Your task to perform on an android device: find photos in the google photos app Image 0: 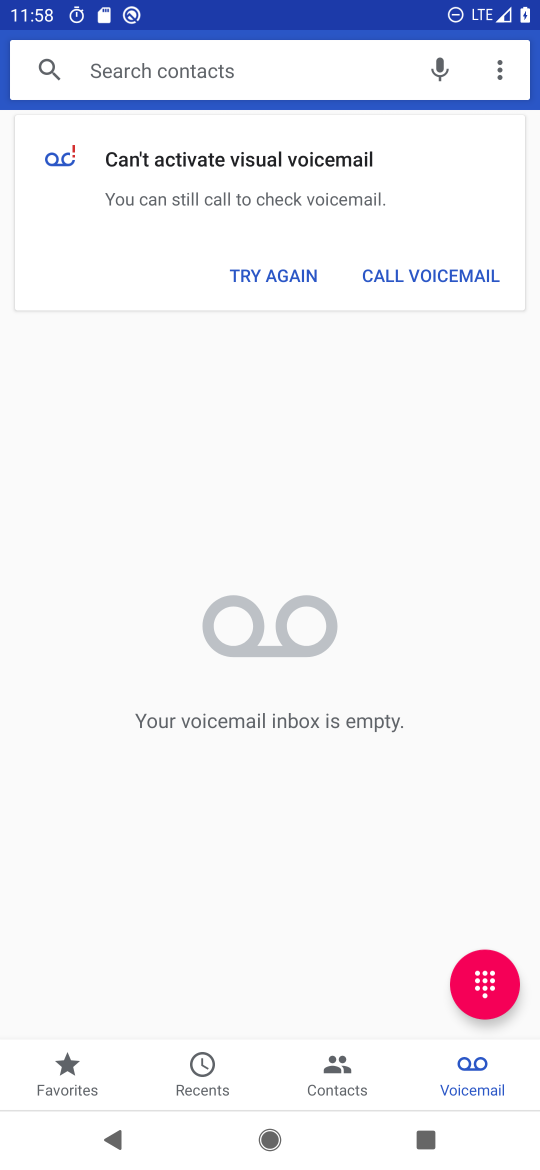
Step 0: press home button
Your task to perform on an android device: find photos in the google photos app Image 1: 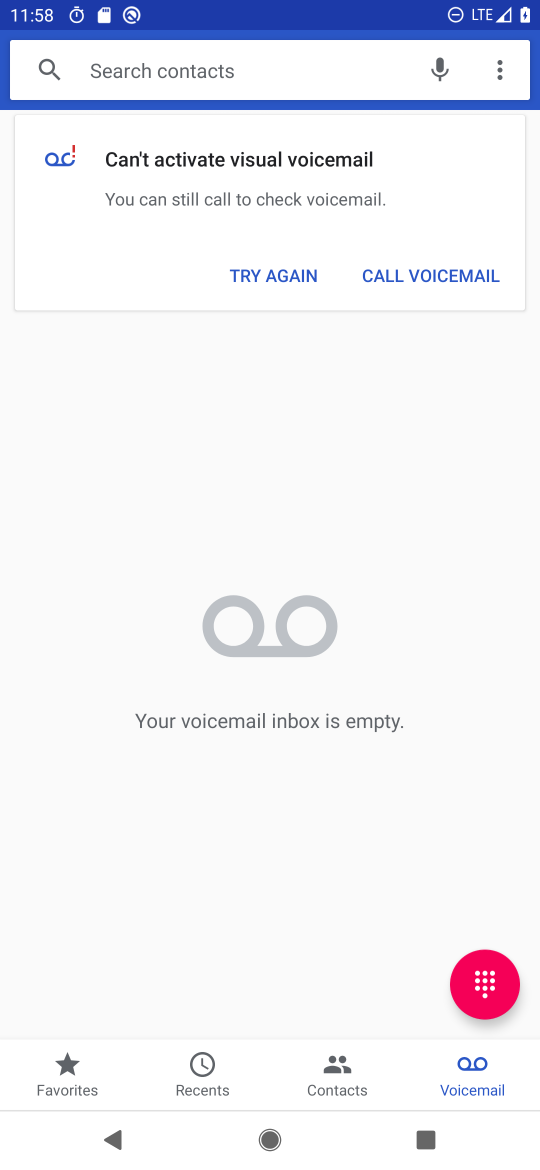
Step 1: press home button
Your task to perform on an android device: find photos in the google photos app Image 2: 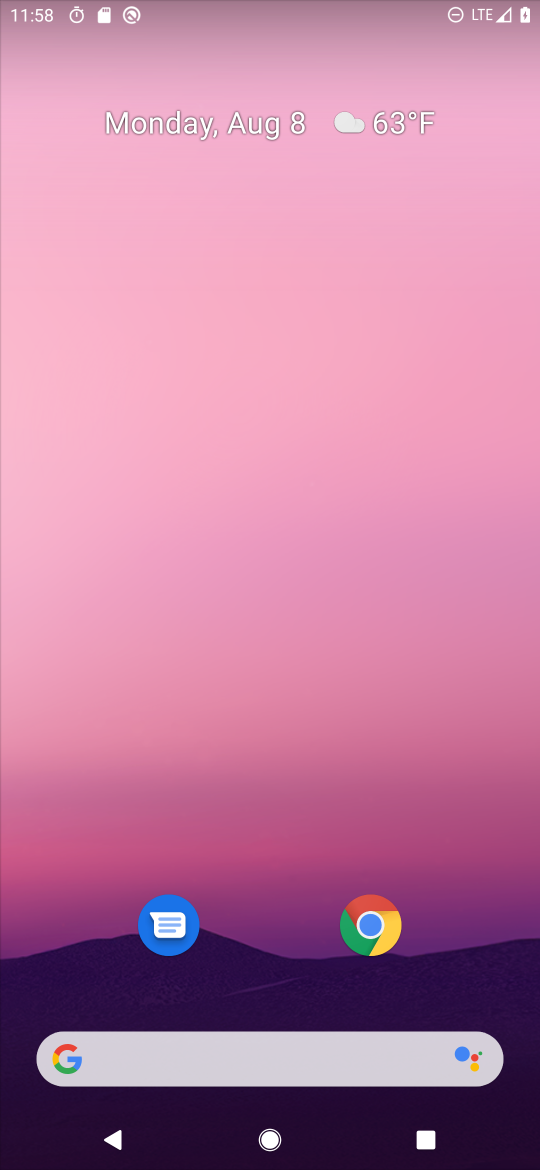
Step 2: drag from (283, 870) to (455, 74)
Your task to perform on an android device: find photos in the google photos app Image 3: 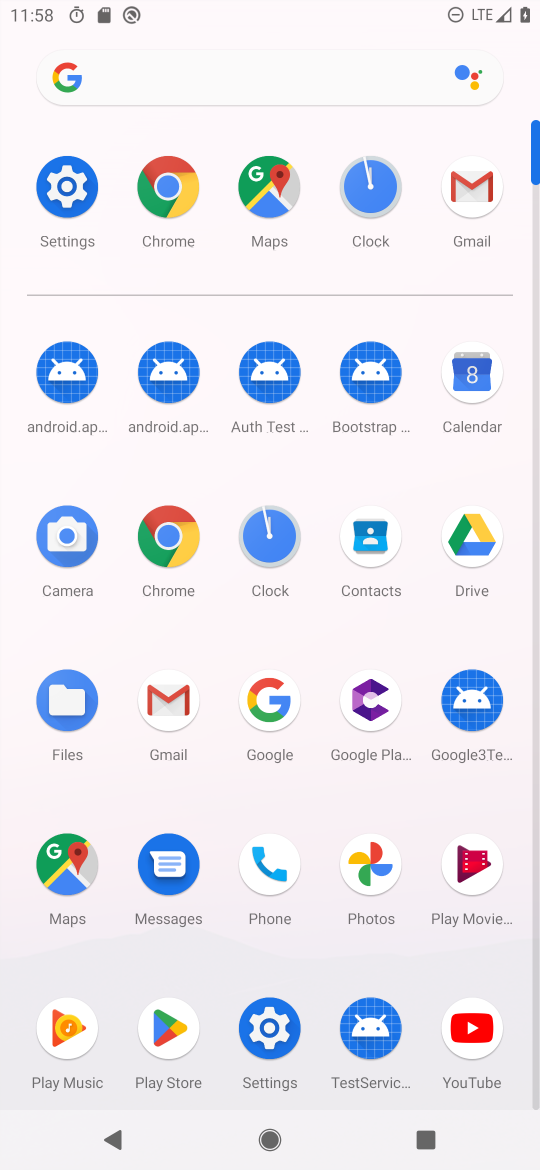
Step 3: click (385, 856)
Your task to perform on an android device: find photos in the google photos app Image 4: 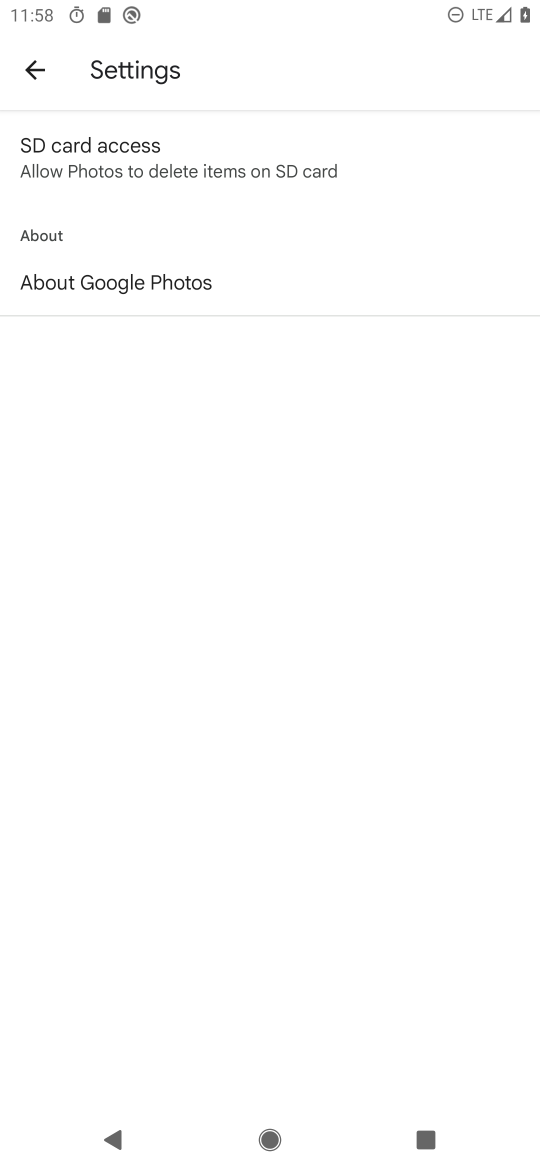
Step 4: click (22, 50)
Your task to perform on an android device: find photos in the google photos app Image 5: 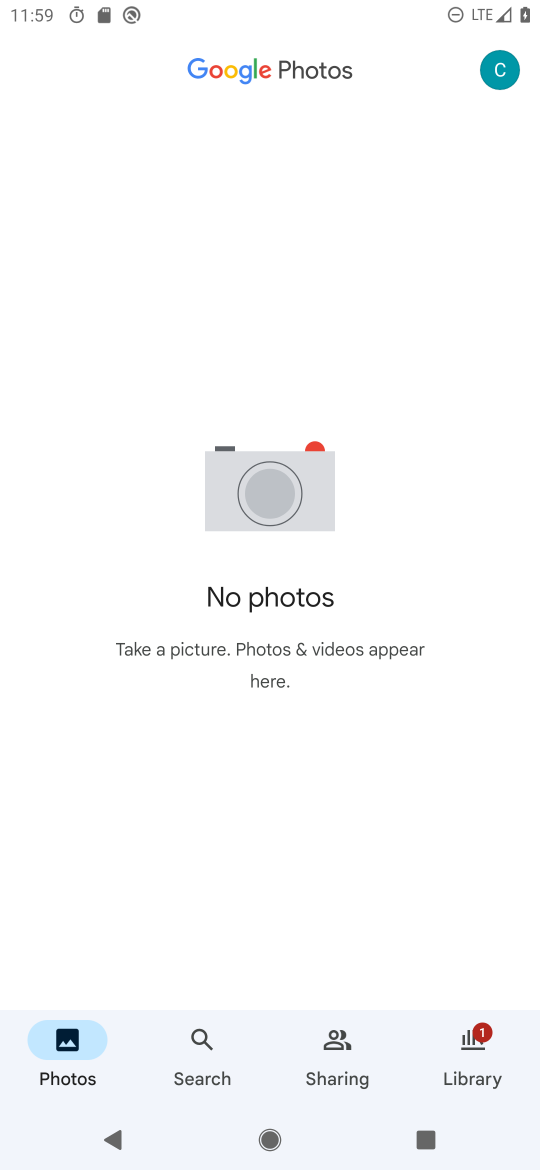
Step 5: task complete